Your task to perform on an android device: Check the news Image 0: 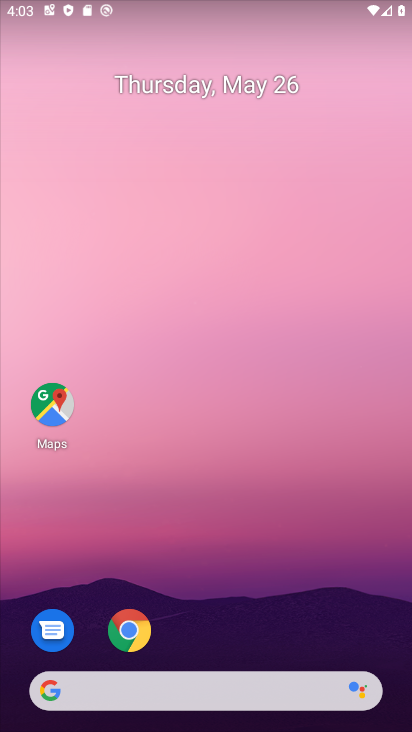
Step 0: drag from (241, 589) to (228, 114)
Your task to perform on an android device: Check the news Image 1: 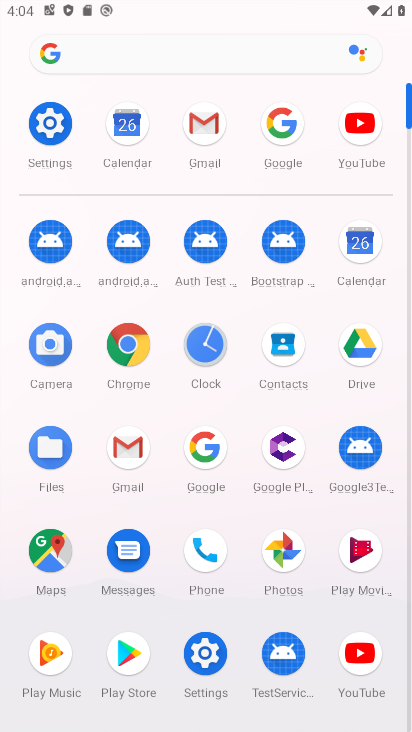
Step 1: click (279, 122)
Your task to perform on an android device: Check the news Image 2: 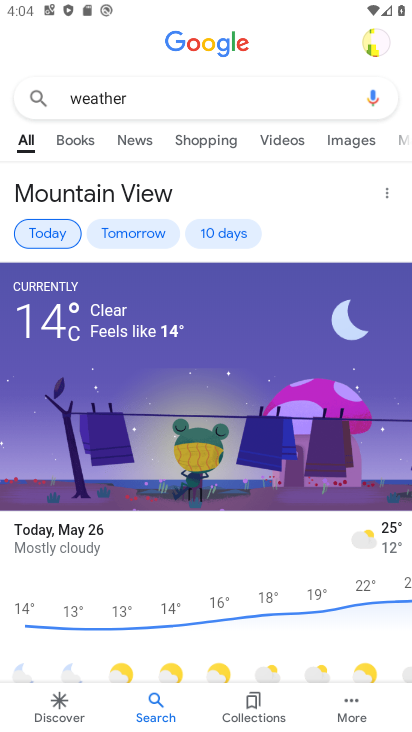
Step 2: click (181, 75)
Your task to perform on an android device: Check the news Image 3: 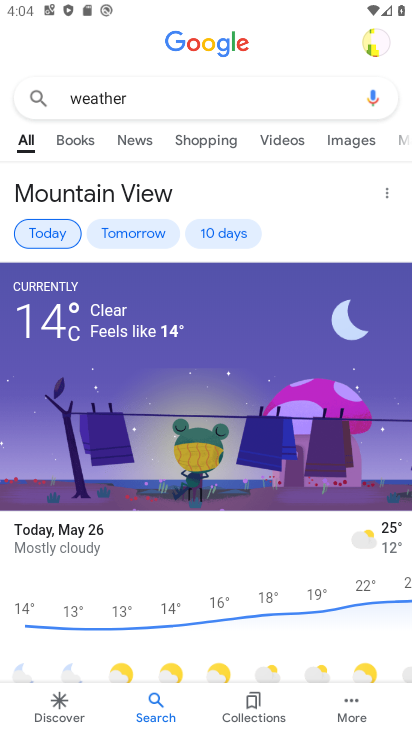
Step 3: click (186, 96)
Your task to perform on an android device: Check the news Image 4: 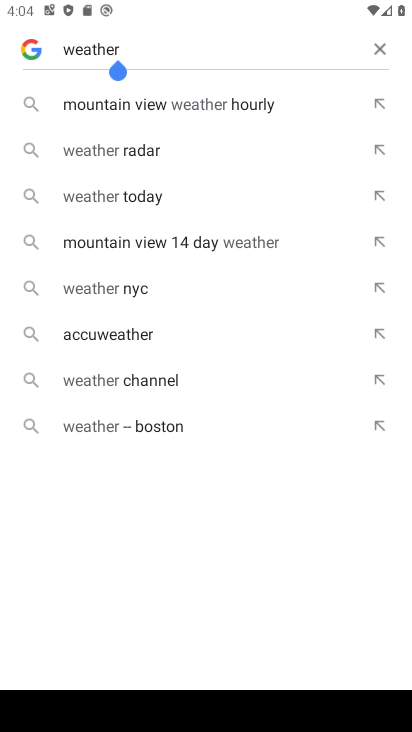
Step 4: click (378, 44)
Your task to perform on an android device: Check the news Image 5: 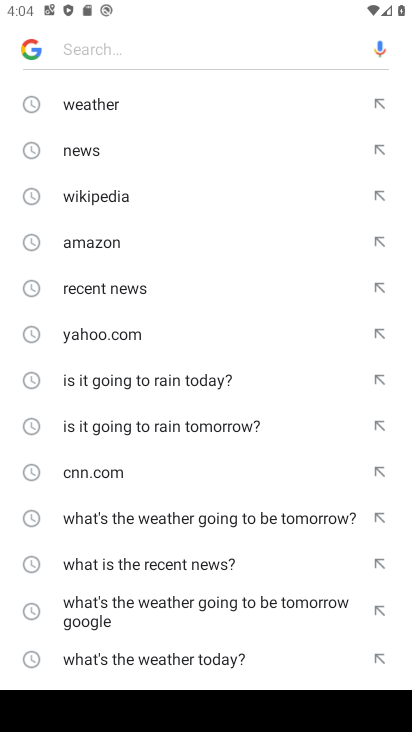
Step 5: type "news"
Your task to perform on an android device: Check the news Image 6: 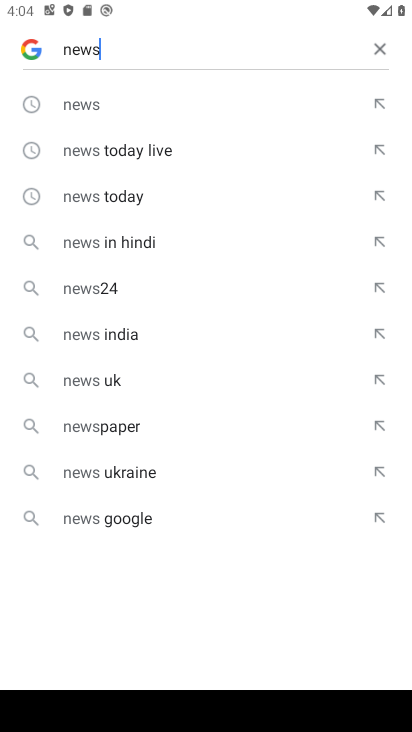
Step 6: click (69, 98)
Your task to perform on an android device: Check the news Image 7: 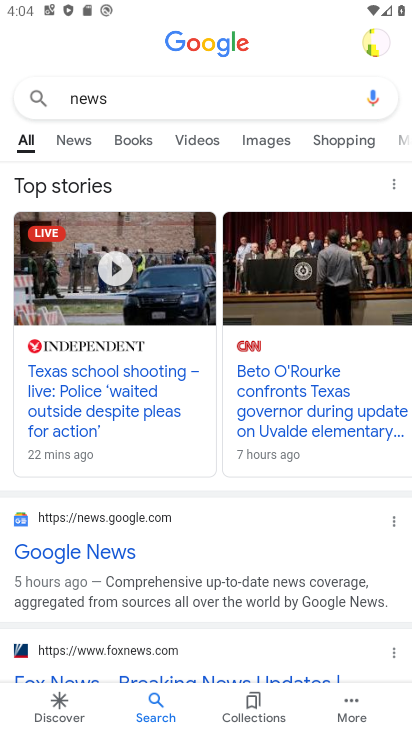
Step 7: click (122, 398)
Your task to perform on an android device: Check the news Image 8: 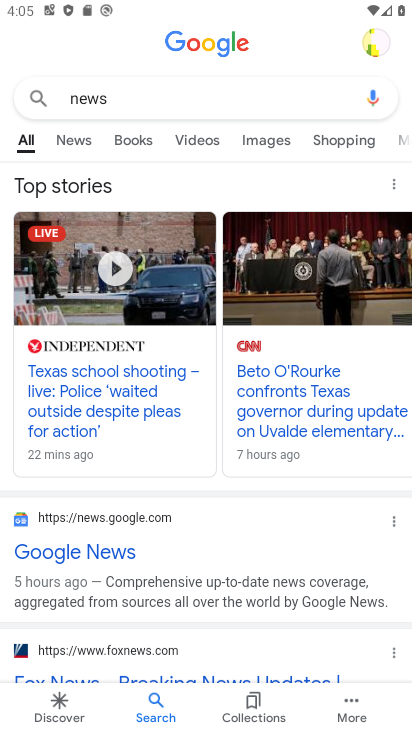
Step 8: click (95, 396)
Your task to perform on an android device: Check the news Image 9: 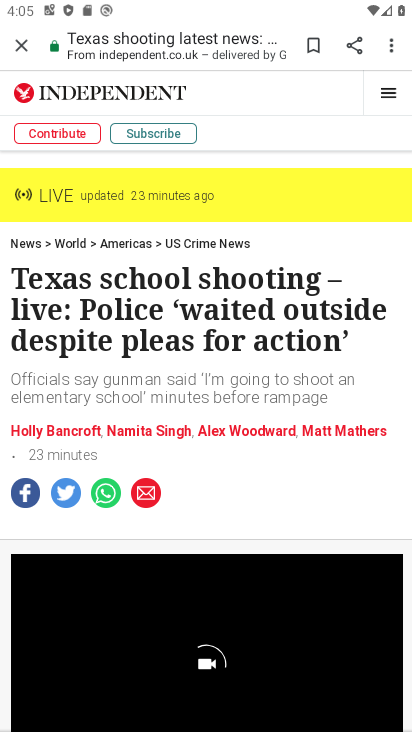
Step 9: task complete